Your task to perform on an android device: Go to CNN.com Image 0: 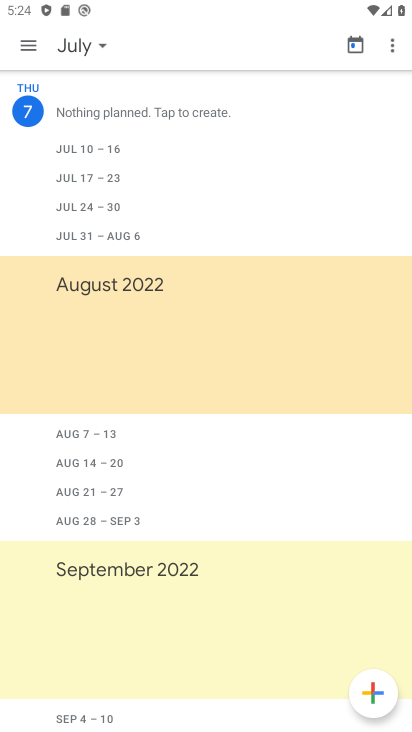
Step 0: press home button
Your task to perform on an android device: Go to CNN.com Image 1: 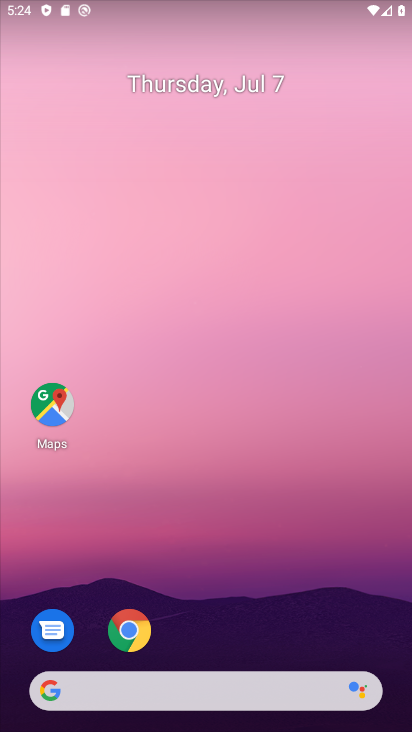
Step 1: drag from (231, 413) to (231, 66)
Your task to perform on an android device: Go to CNN.com Image 2: 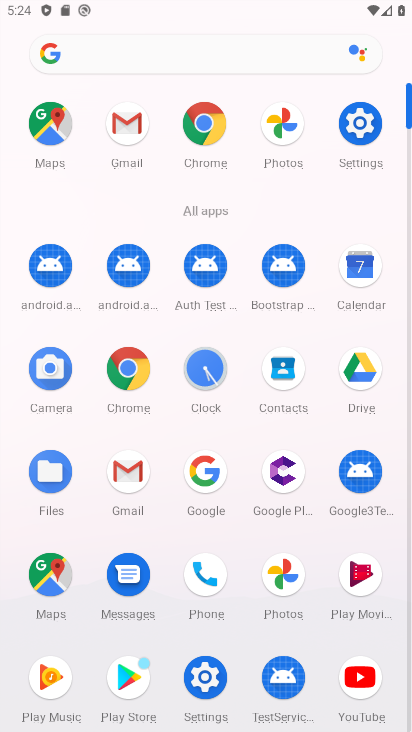
Step 2: click (200, 137)
Your task to perform on an android device: Go to CNN.com Image 3: 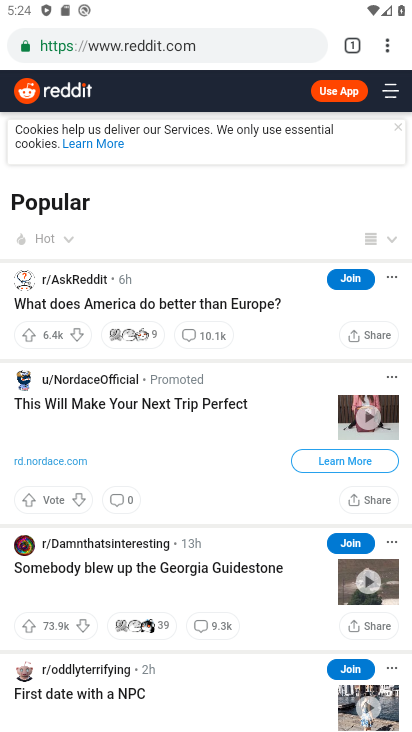
Step 3: click (175, 43)
Your task to perform on an android device: Go to CNN.com Image 4: 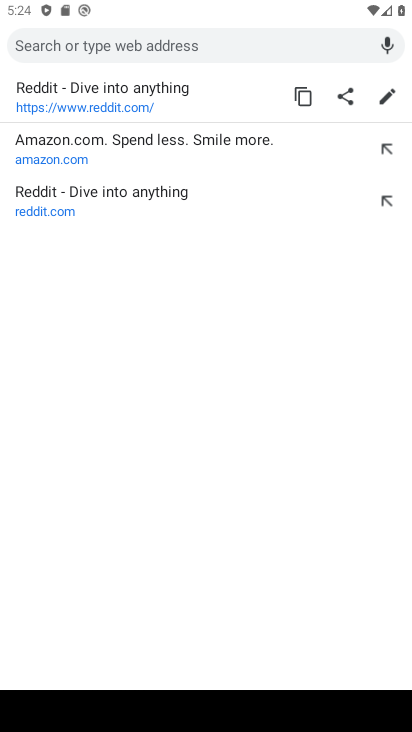
Step 4: type ""
Your task to perform on an android device: Go to CNN.com Image 5: 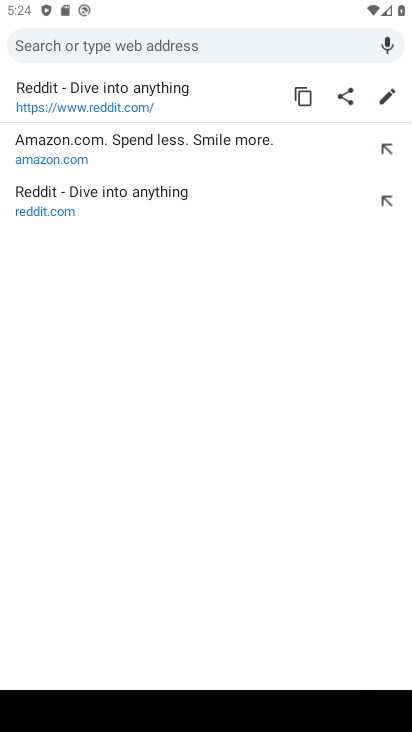
Step 5: type "www.cnn.com"
Your task to perform on an android device: Go to CNN.com Image 6: 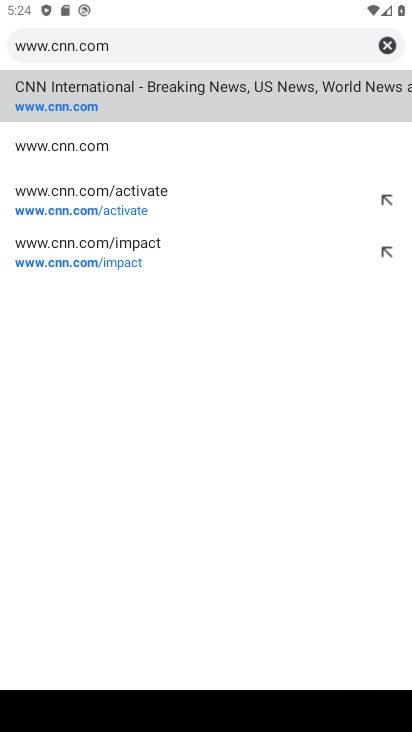
Step 6: click (42, 101)
Your task to perform on an android device: Go to CNN.com Image 7: 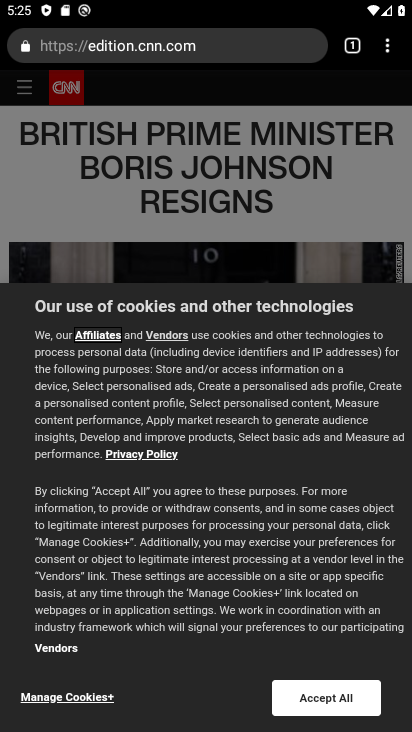
Step 7: task complete